Your task to perform on an android device: Is it going to rain today? Image 0: 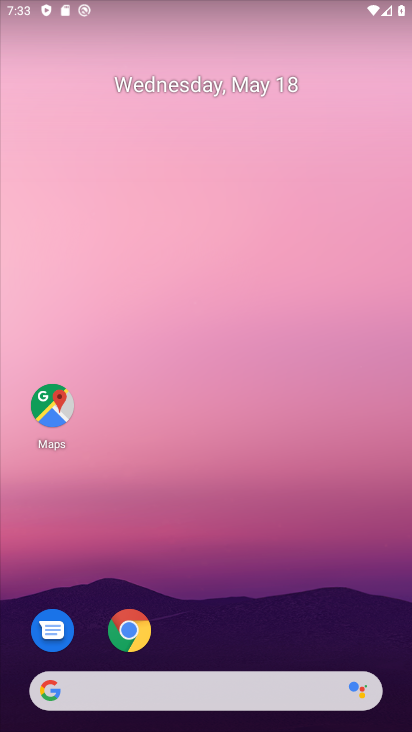
Step 0: click (202, 689)
Your task to perform on an android device: Is it going to rain today? Image 1: 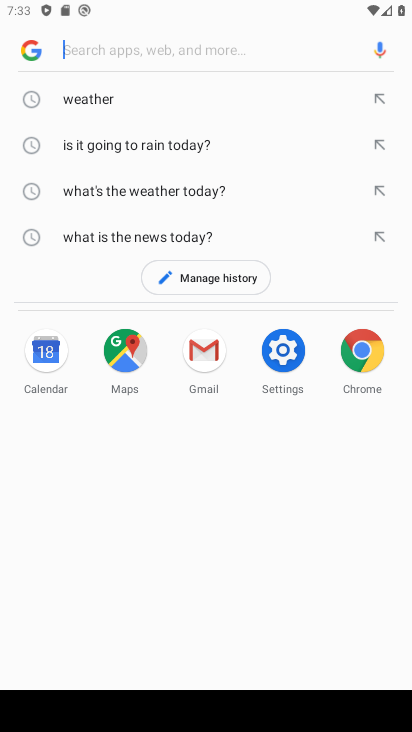
Step 1: click (88, 93)
Your task to perform on an android device: Is it going to rain today? Image 2: 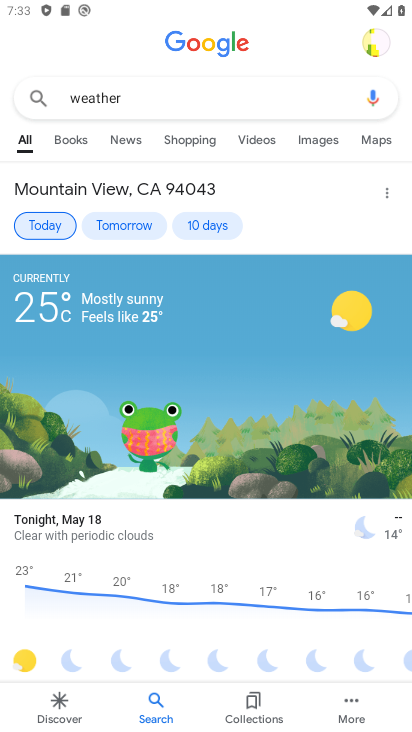
Step 2: task complete